Your task to perform on an android device: add a label to a message in the gmail app Image 0: 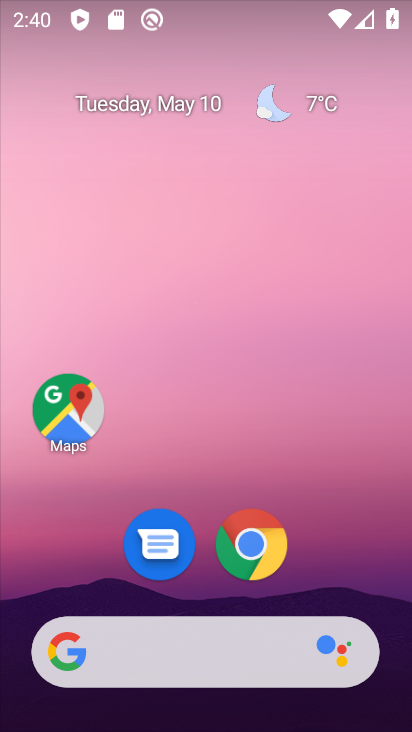
Step 0: drag from (387, 568) to (371, 232)
Your task to perform on an android device: add a label to a message in the gmail app Image 1: 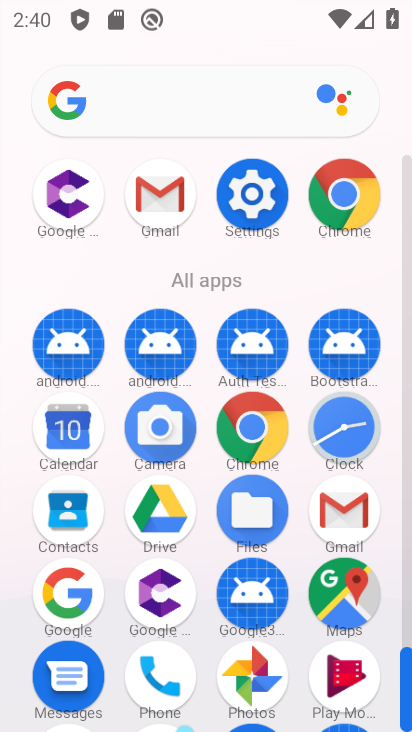
Step 1: click (329, 515)
Your task to perform on an android device: add a label to a message in the gmail app Image 2: 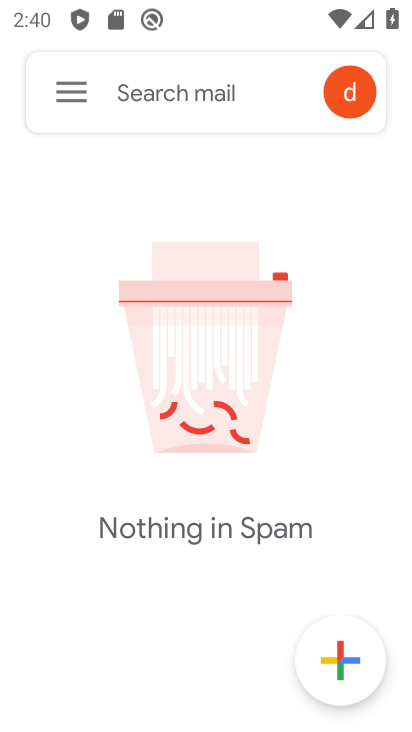
Step 2: click (70, 94)
Your task to perform on an android device: add a label to a message in the gmail app Image 3: 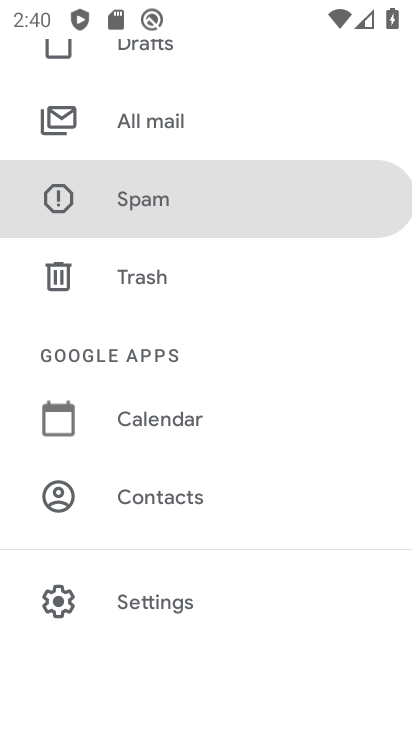
Step 3: click (162, 117)
Your task to perform on an android device: add a label to a message in the gmail app Image 4: 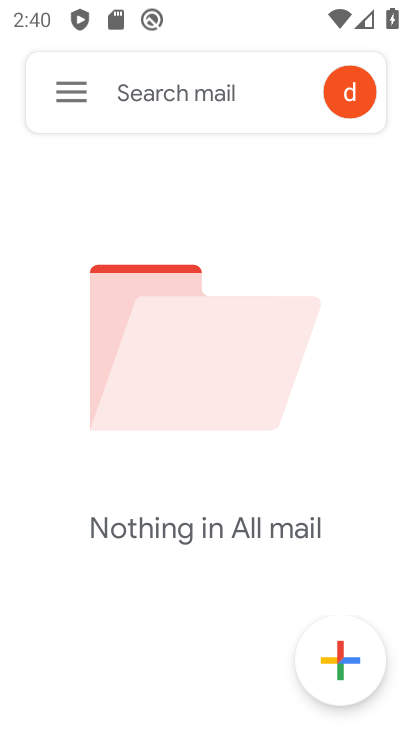
Step 4: task complete